Your task to perform on an android device: turn pop-ups on in chrome Image 0: 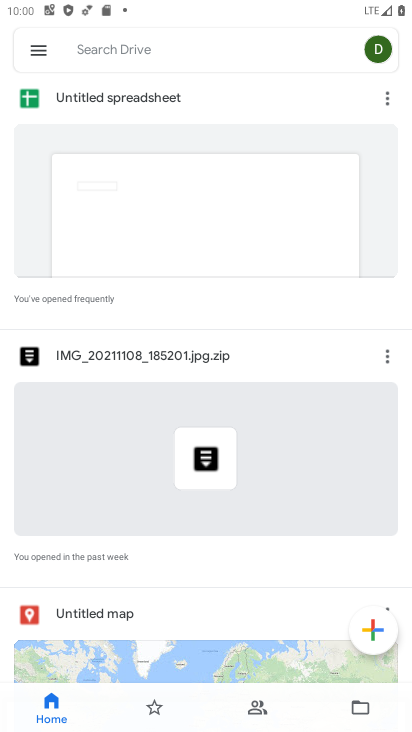
Step 0: press back button
Your task to perform on an android device: turn pop-ups on in chrome Image 1: 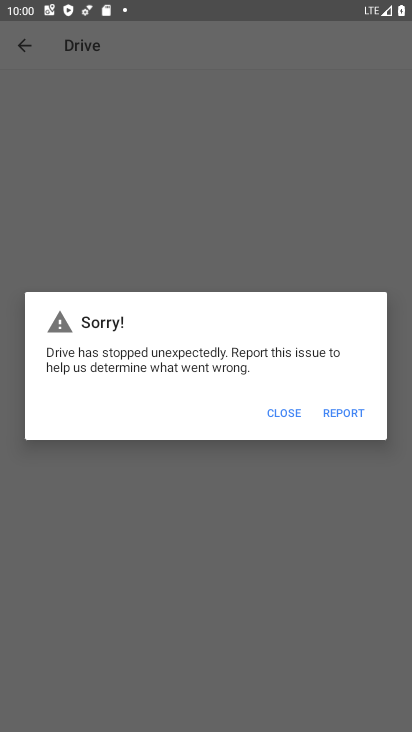
Step 1: press home button
Your task to perform on an android device: turn pop-ups on in chrome Image 2: 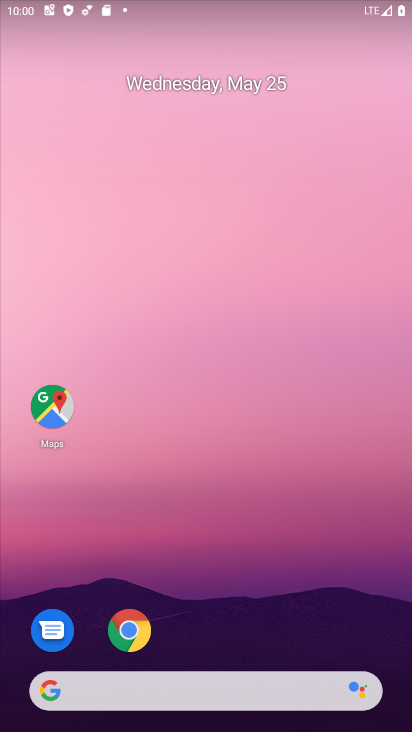
Step 2: click (133, 630)
Your task to perform on an android device: turn pop-ups on in chrome Image 3: 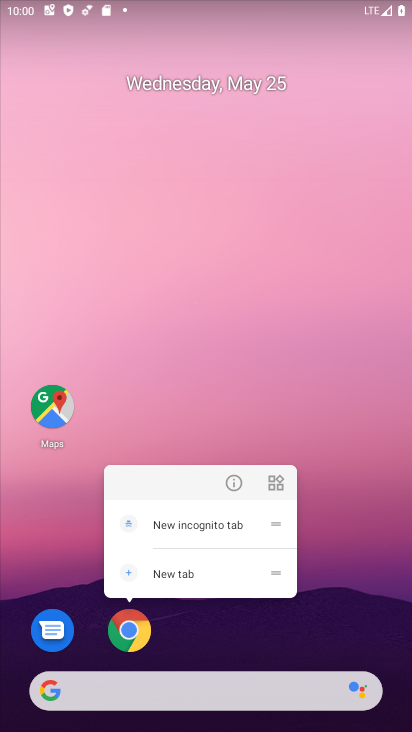
Step 3: click (124, 636)
Your task to perform on an android device: turn pop-ups on in chrome Image 4: 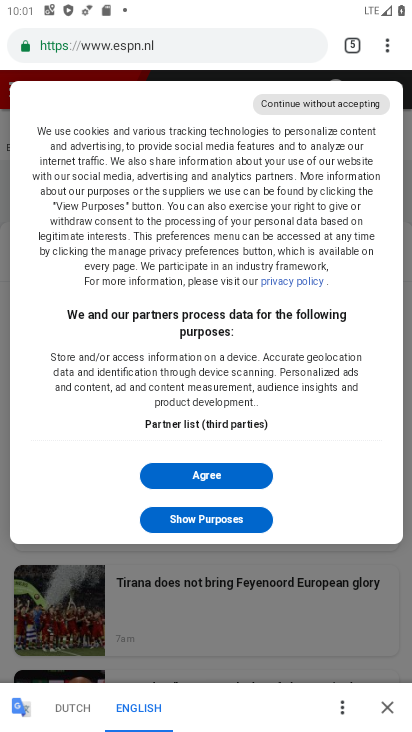
Step 4: drag from (381, 47) to (212, 509)
Your task to perform on an android device: turn pop-ups on in chrome Image 5: 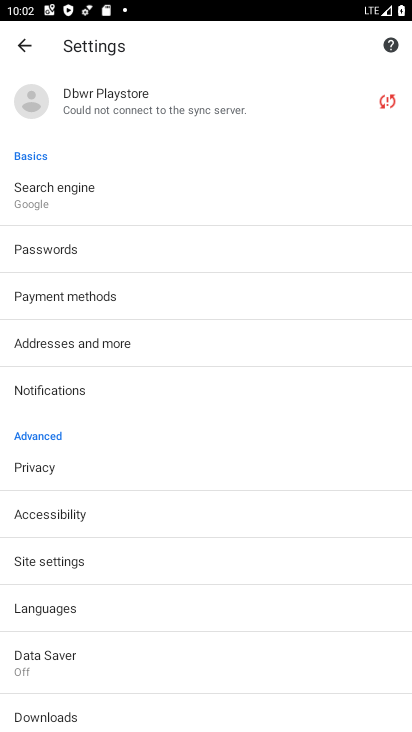
Step 5: click (129, 568)
Your task to perform on an android device: turn pop-ups on in chrome Image 6: 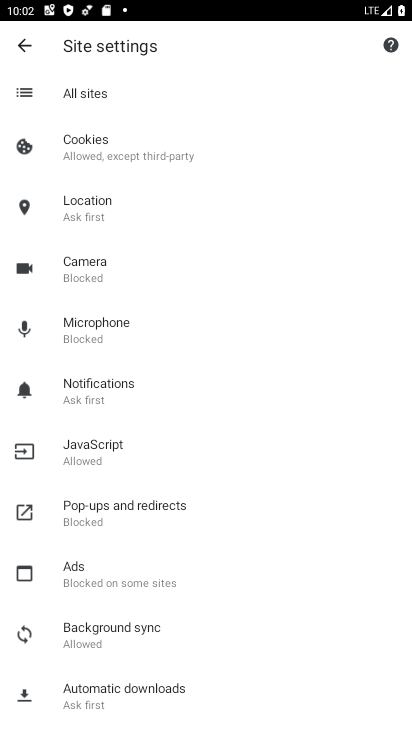
Step 6: click (132, 520)
Your task to perform on an android device: turn pop-ups on in chrome Image 7: 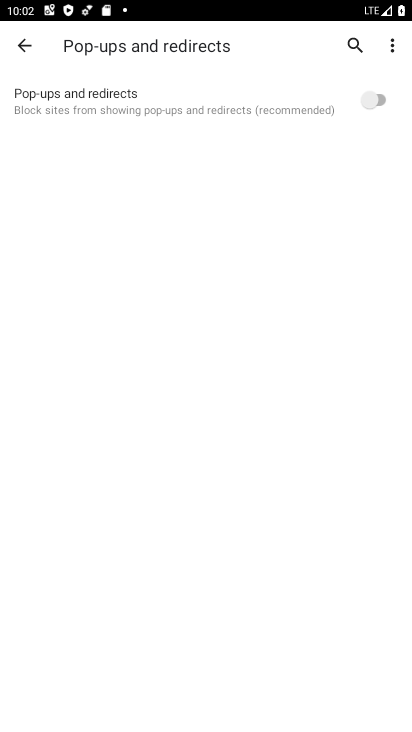
Step 7: click (368, 96)
Your task to perform on an android device: turn pop-ups on in chrome Image 8: 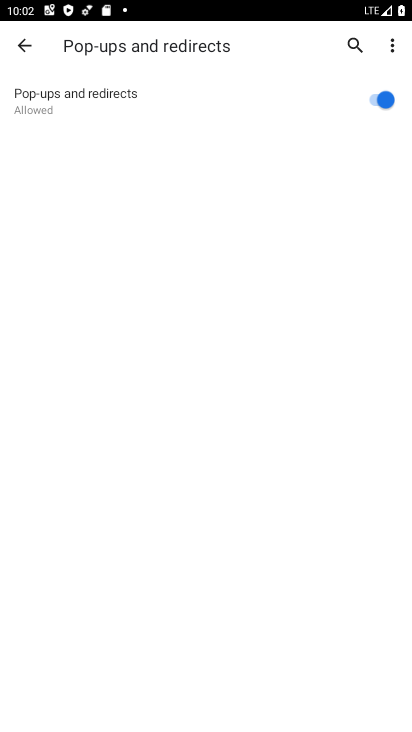
Step 8: task complete